Your task to perform on an android device: Turn on the flashlight Image 0: 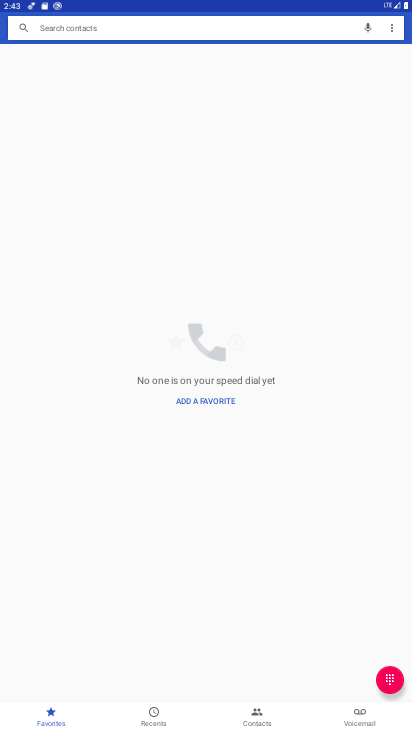
Step 0: press home button
Your task to perform on an android device: Turn on the flashlight Image 1: 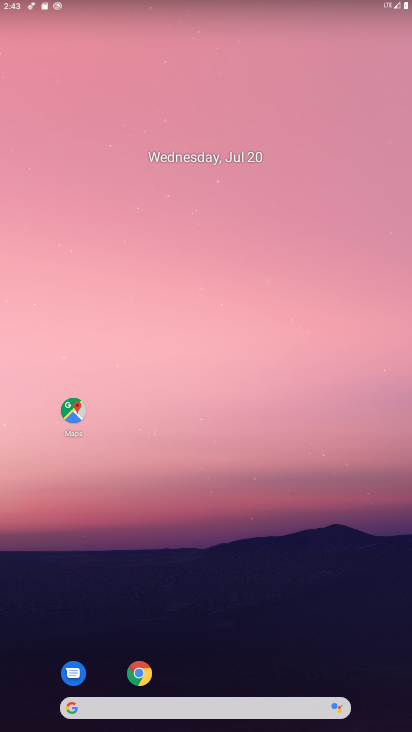
Step 1: drag from (237, 655) to (253, 35)
Your task to perform on an android device: Turn on the flashlight Image 2: 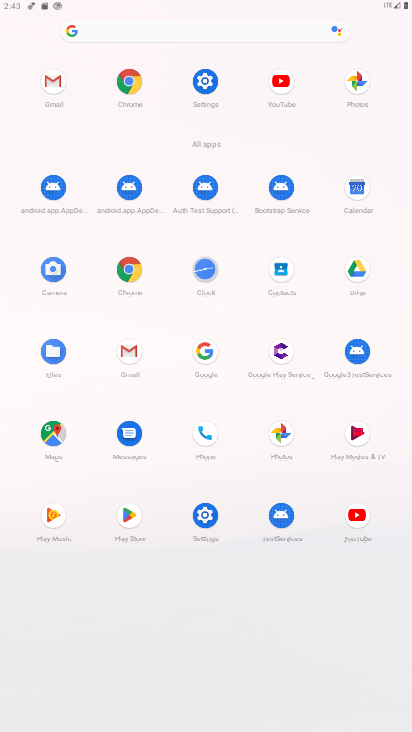
Step 2: click (207, 529)
Your task to perform on an android device: Turn on the flashlight Image 3: 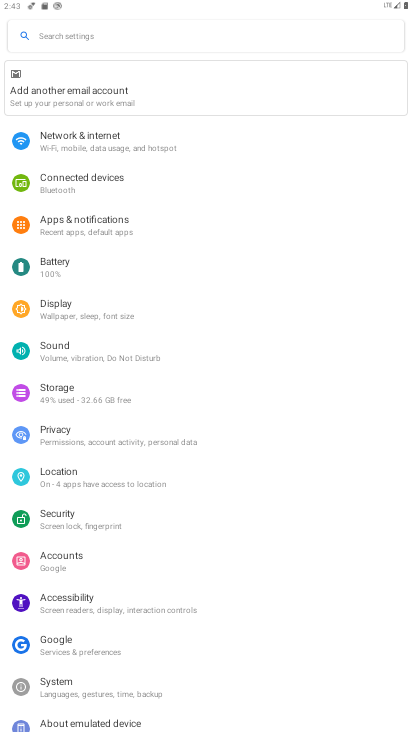
Step 3: click (151, 36)
Your task to perform on an android device: Turn on the flashlight Image 4: 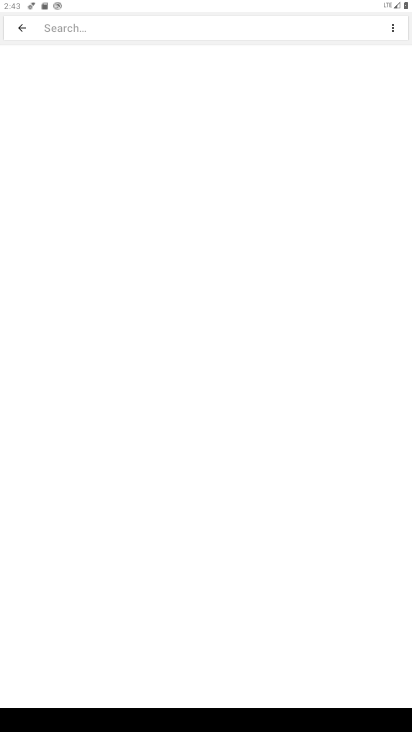
Step 4: type "flashlight"
Your task to perform on an android device: Turn on the flashlight Image 5: 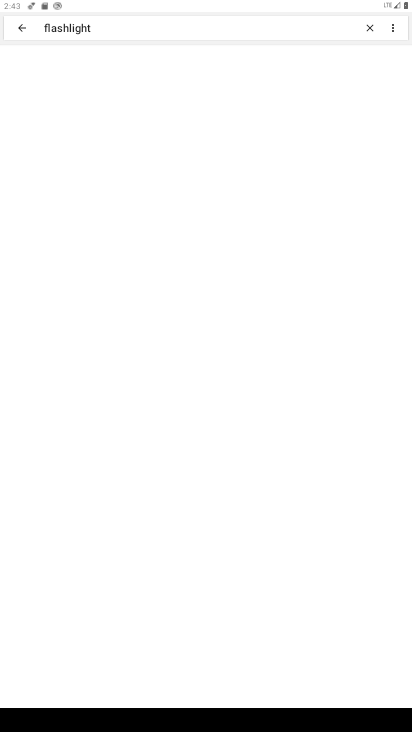
Step 5: click (88, 78)
Your task to perform on an android device: Turn on the flashlight Image 6: 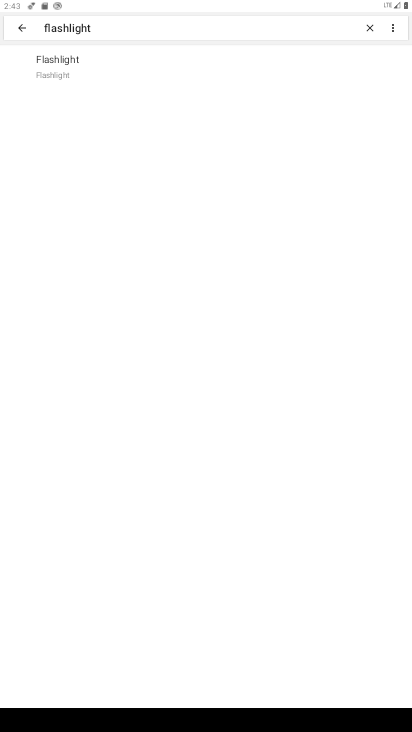
Step 6: click (87, 79)
Your task to perform on an android device: Turn on the flashlight Image 7: 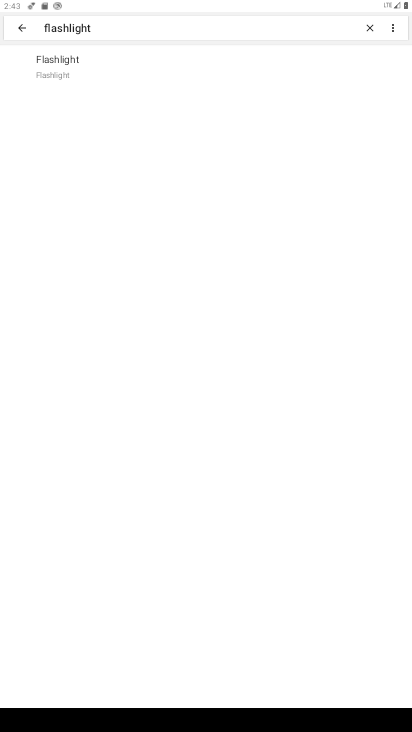
Step 7: click (66, 63)
Your task to perform on an android device: Turn on the flashlight Image 8: 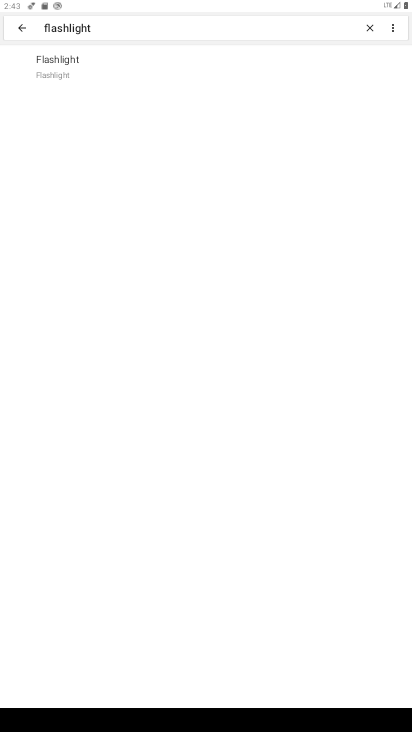
Step 8: click (72, 58)
Your task to perform on an android device: Turn on the flashlight Image 9: 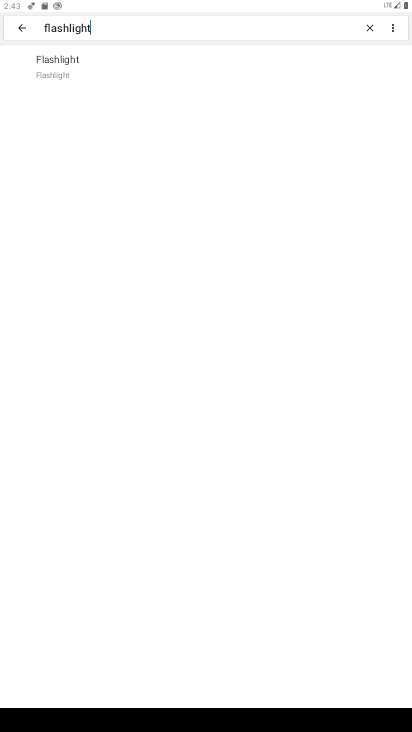
Step 9: task complete